Your task to perform on an android device: Open calendar and show me the fourth week of next month Image 0: 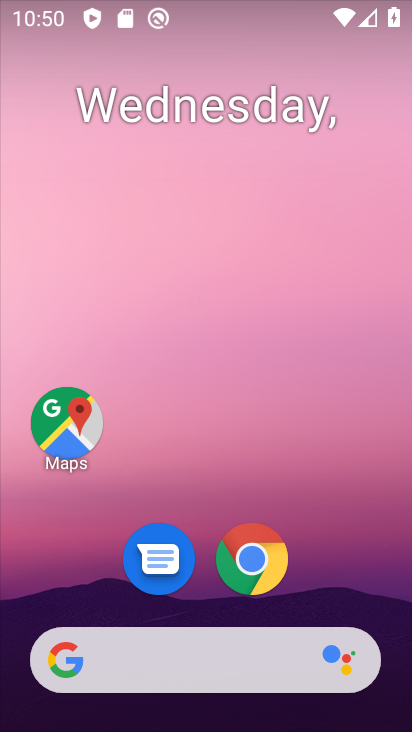
Step 0: drag from (351, 578) to (10, 0)
Your task to perform on an android device: Open calendar and show me the fourth week of next month Image 1: 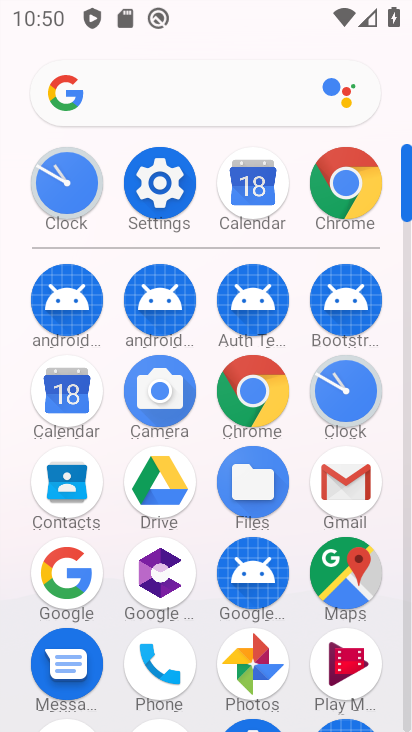
Step 1: click (33, 400)
Your task to perform on an android device: Open calendar and show me the fourth week of next month Image 2: 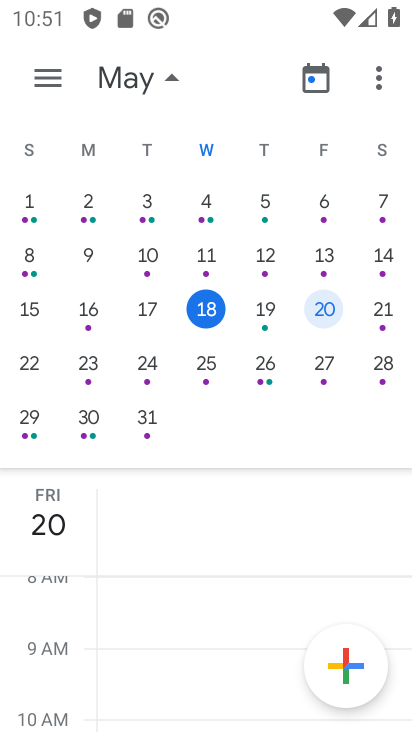
Step 2: drag from (375, 354) to (12, 454)
Your task to perform on an android device: Open calendar and show me the fourth week of next month Image 3: 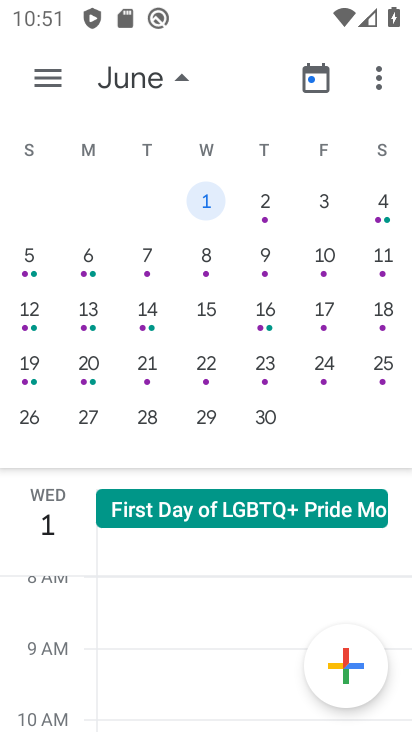
Step 3: click (142, 411)
Your task to perform on an android device: Open calendar and show me the fourth week of next month Image 4: 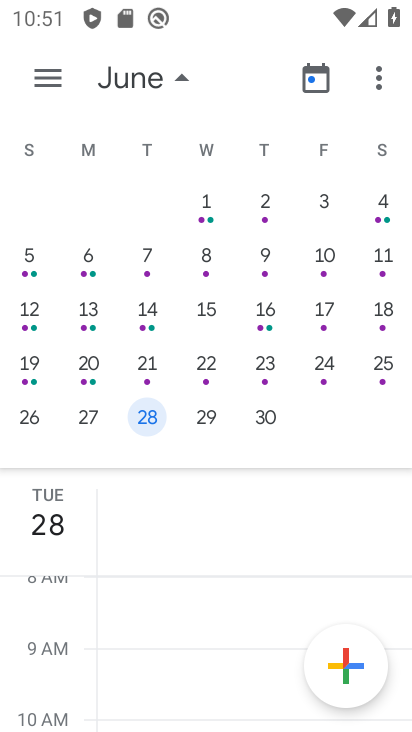
Step 4: task complete